Your task to perform on an android device: Go to battery settings Image 0: 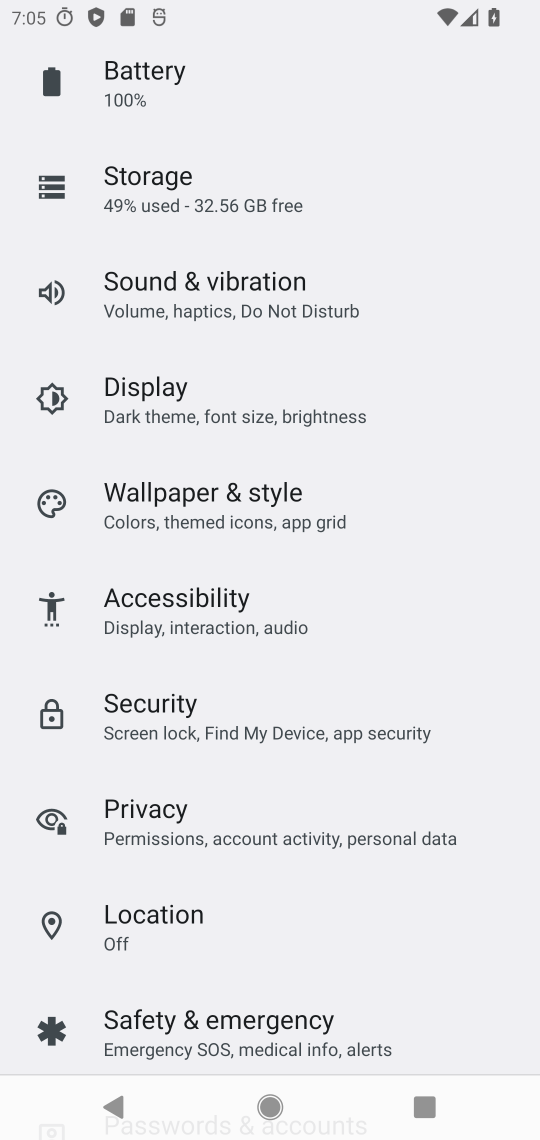
Step 0: click (135, 84)
Your task to perform on an android device: Go to battery settings Image 1: 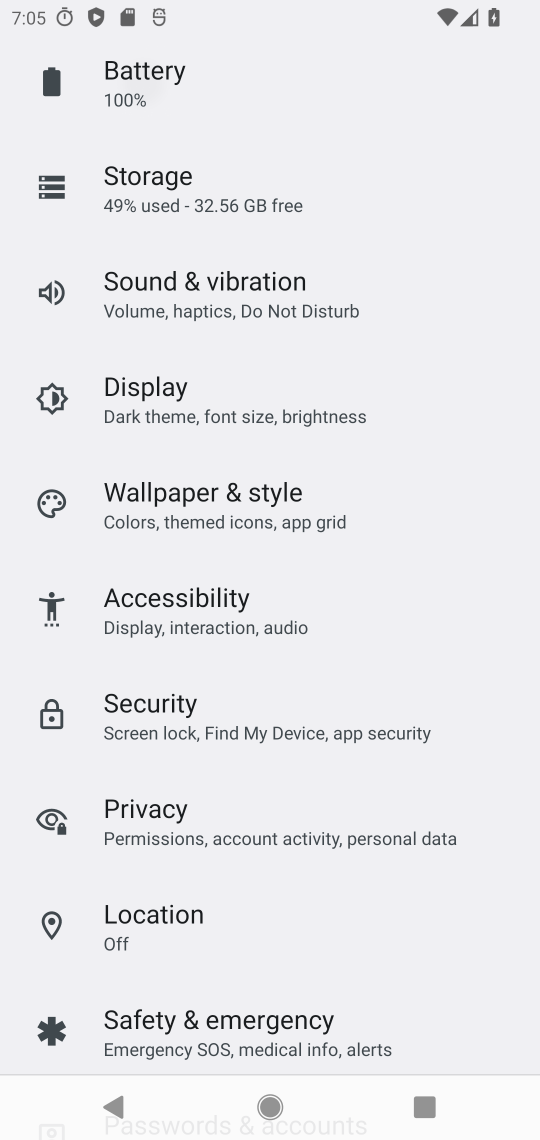
Step 1: click (135, 84)
Your task to perform on an android device: Go to battery settings Image 2: 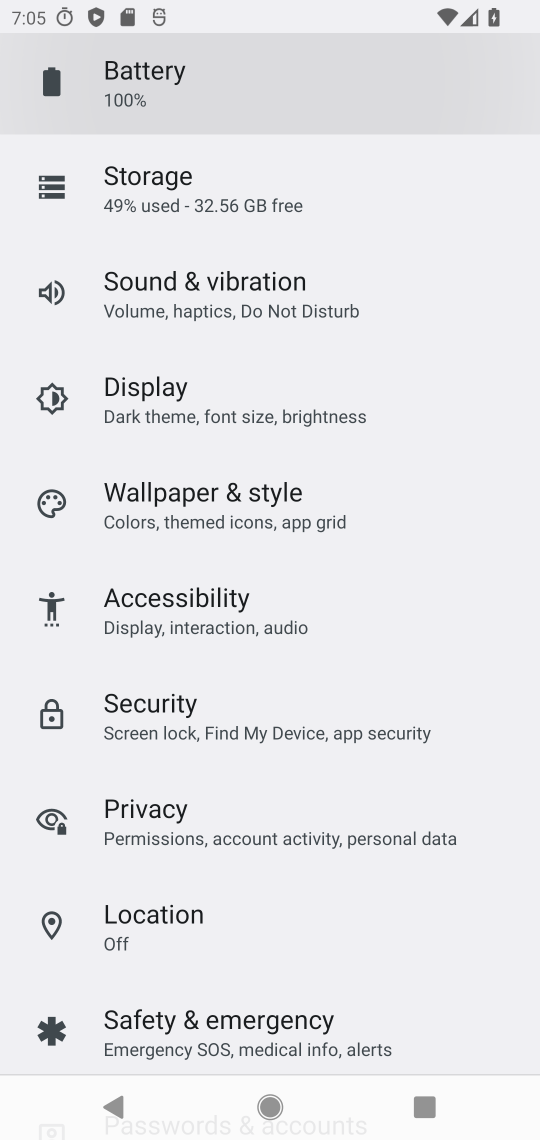
Step 2: click (137, 88)
Your task to perform on an android device: Go to battery settings Image 3: 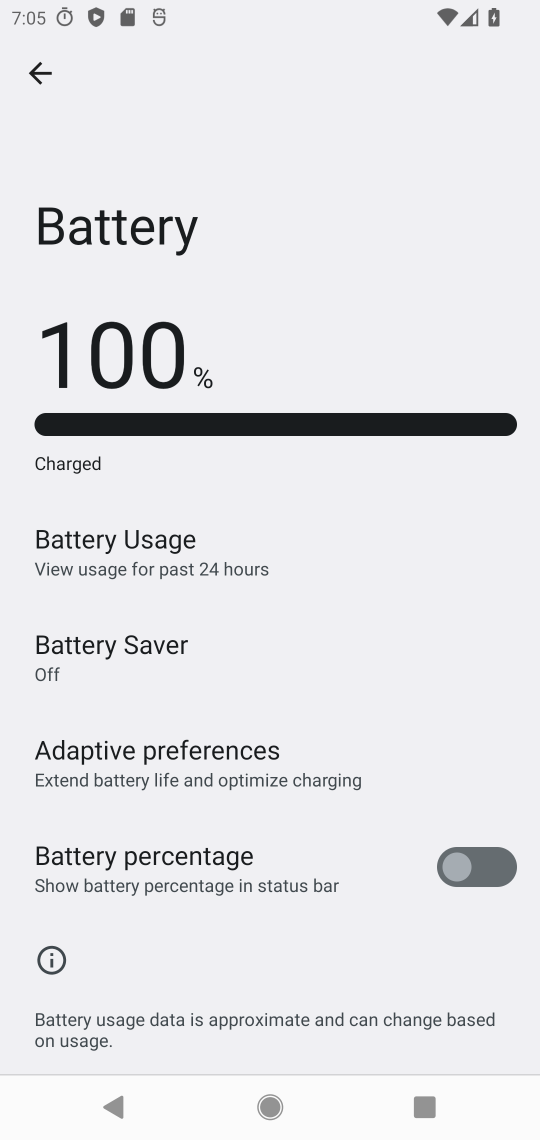
Step 3: task complete